Your task to perform on an android device: change the clock display to analog Image 0: 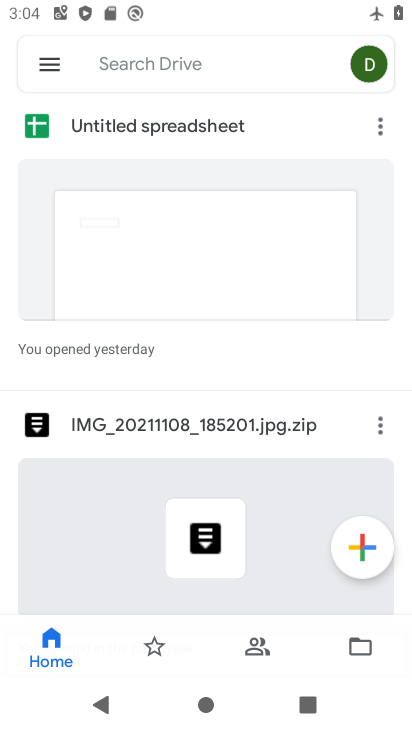
Step 0: press home button
Your task to perform on an android device: change the clock display to analog Image 1: 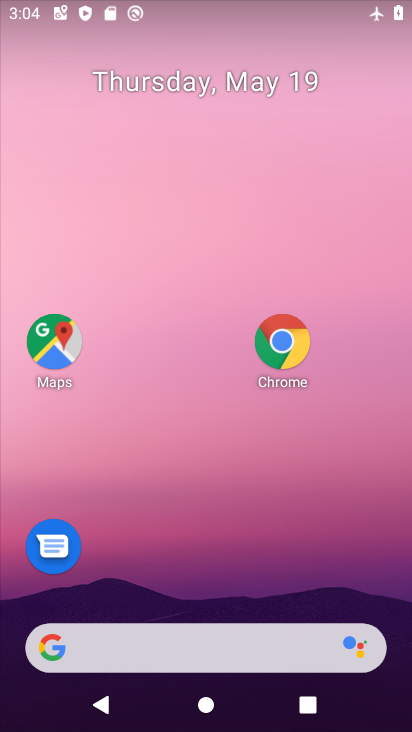
Step 1: drag from (179, 653) to (313, 222)
Your task to perform on an android device: change the clock display to analog Image 2: 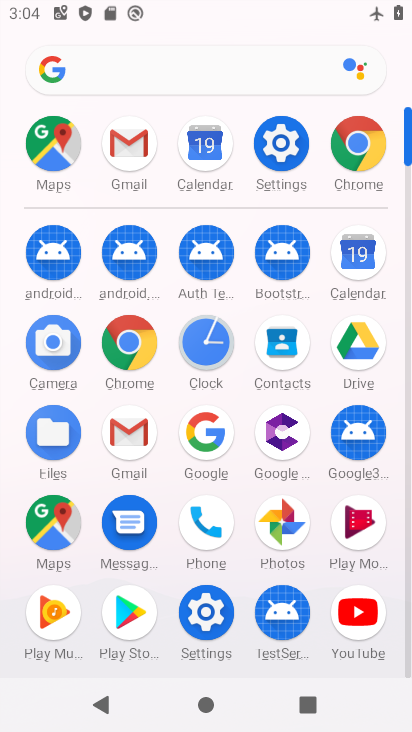
Step 2: click (207, 346)
Your task to perform on an android device: change the clock display to analog Image 3: 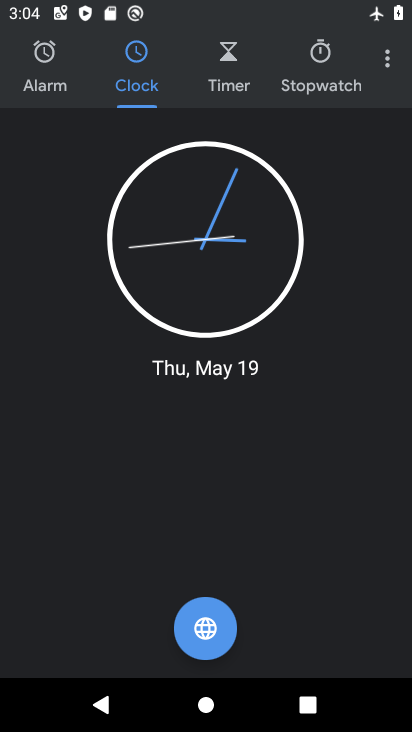
Step 3: click (387, 60)
Your task to perform on an android device: change the clock display to analog Image 4: 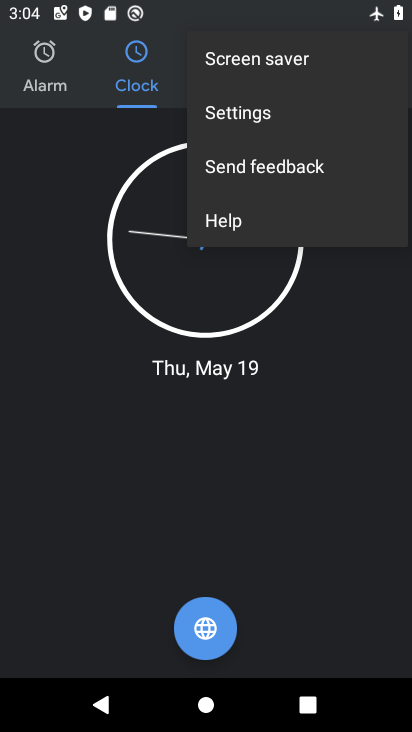
Step 4: click (244, 115)
Your task to perform on an android device: change the clock display to analog Image 5: 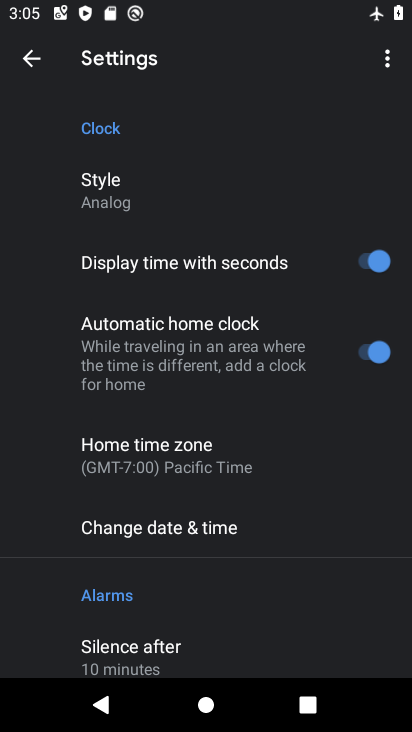
Step 5: task complete